Your task to perform on an android device: What's the weather going to be tomorrow? Image 0: 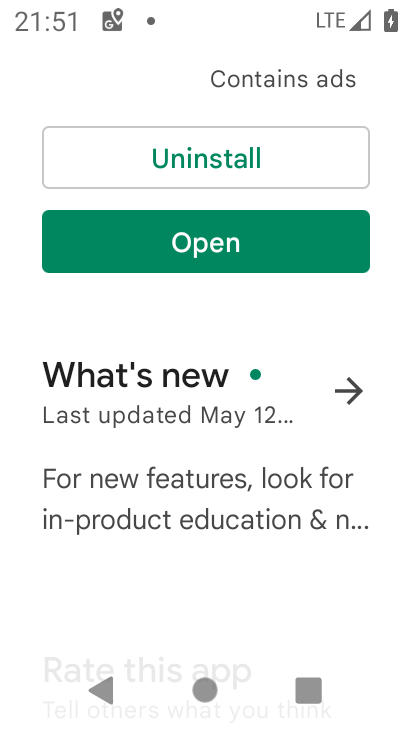
Step 0: drag from (190, 409) to (309, 155)
Your task to perform on an android device: What's the weather going to be tomorrow? Image 1: 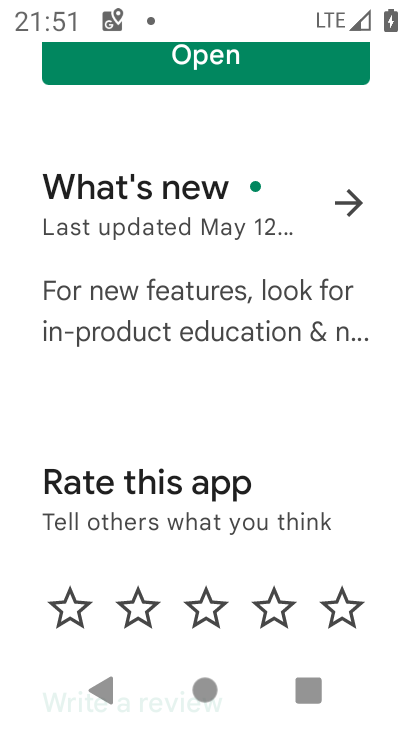
Step 1: press home button
Your task to perform on an android device: What's the weather going to be tomorrow? Image 2: 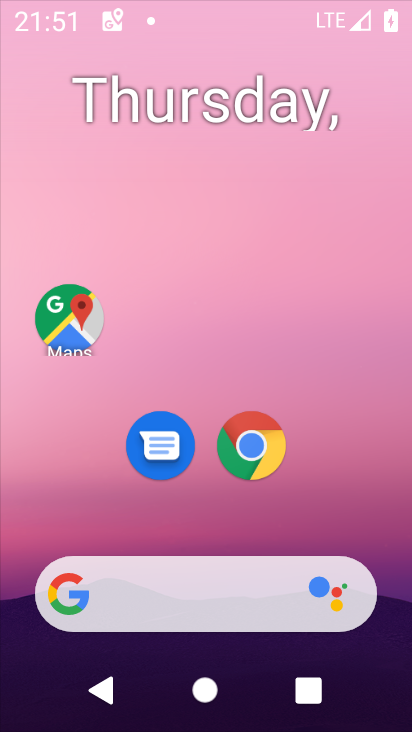
Step 2: drag from (202, 499) to (307, 58)
Your task to perform on an android device: What's the weather going to be tomorrow? Image 3: 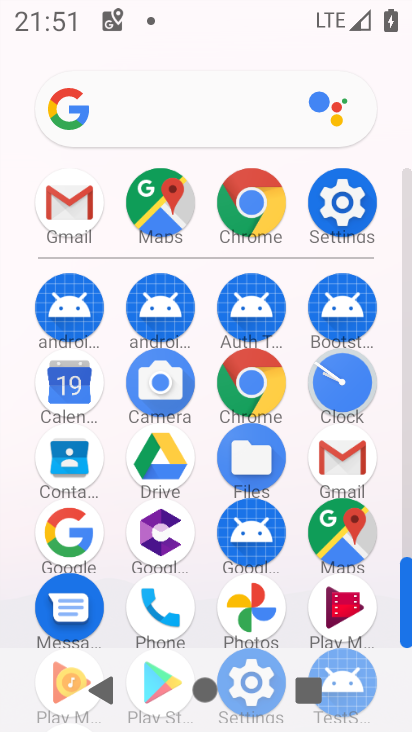
Step 3: click (65, 390)
Your task to perform on an android device: What's the weather going to be tomorrow? Image 4: 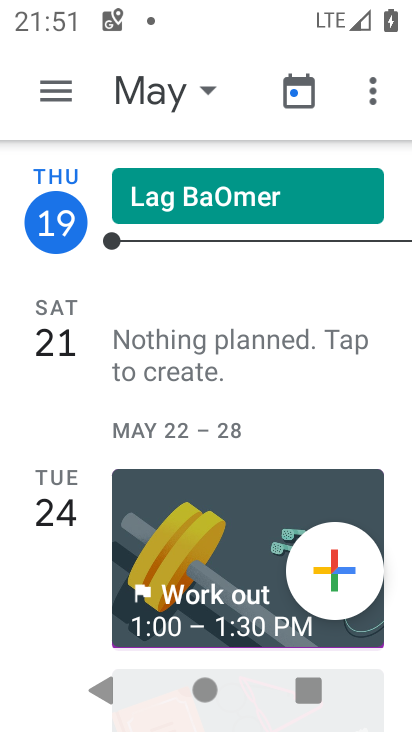
Step 4: drag from (240, 588) to (300, 212)
Your task to perform on an android device: What's the weather going to be tomorrow? Image 5: 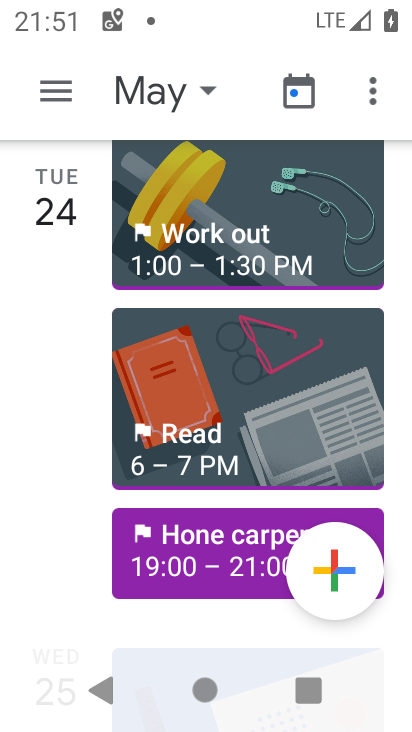
Step 5: press home button
Your task to perform on an android device: What's the weather going to be tomorrow? Image 6: 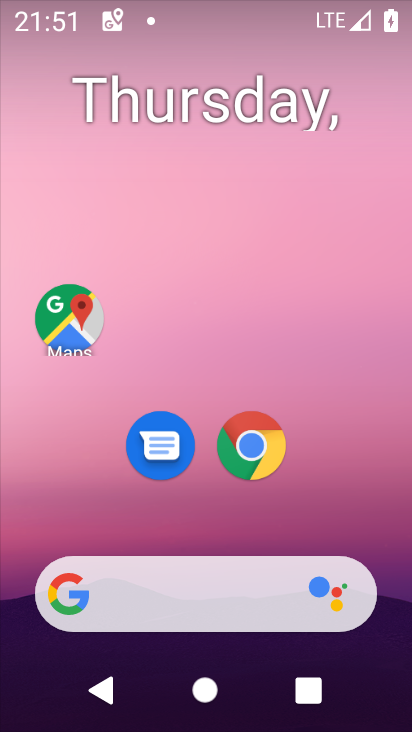
Step 6: drag from (200, 555) to (214, 86)
Your task to perform on an android device: What's the weather going to be tomorrow? Image 7: 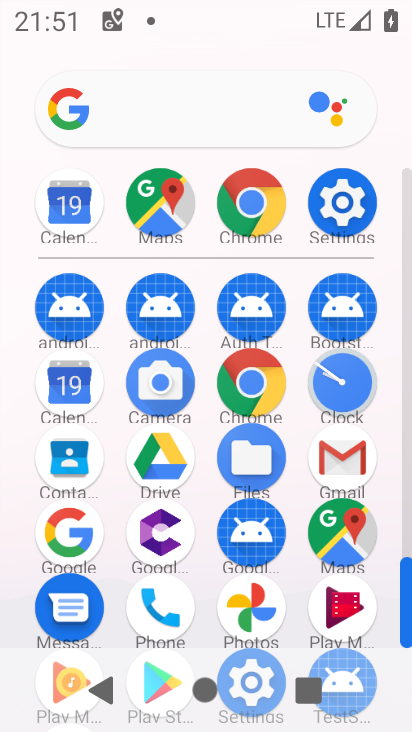
Step 7: click (201, 131)
Your task to perform on an android device: What's the weather going to be tomorrow? Image 8: 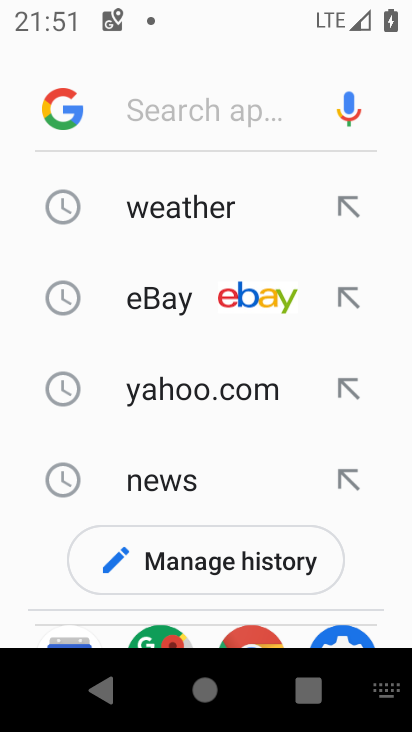
Step 8: type "What's the weather going to be tomorrow?"
Your task to perform on an android device: What's the weather going to be tomorrow? Image 9: 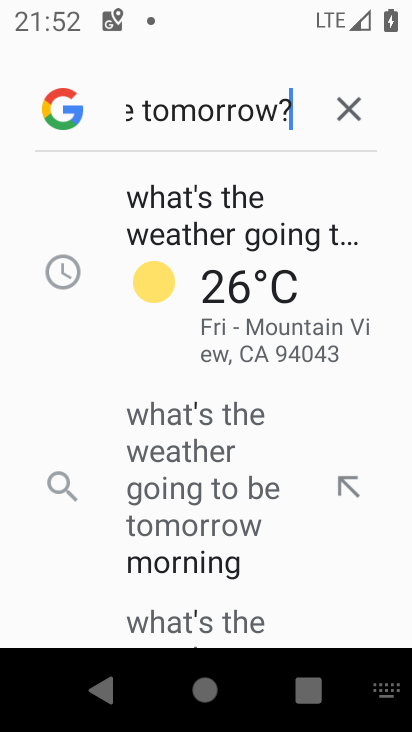
Step 9: click (79, 211)
Your task to perform on an android device: What's the weather going to be tomorrow? Image 10: 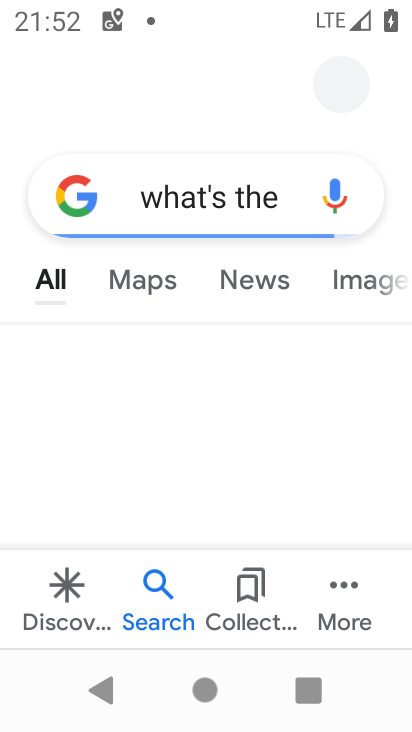
Step 10: task complete